Your task to perform on an android device: see tabs open on other devices in the chrome app Image 0: 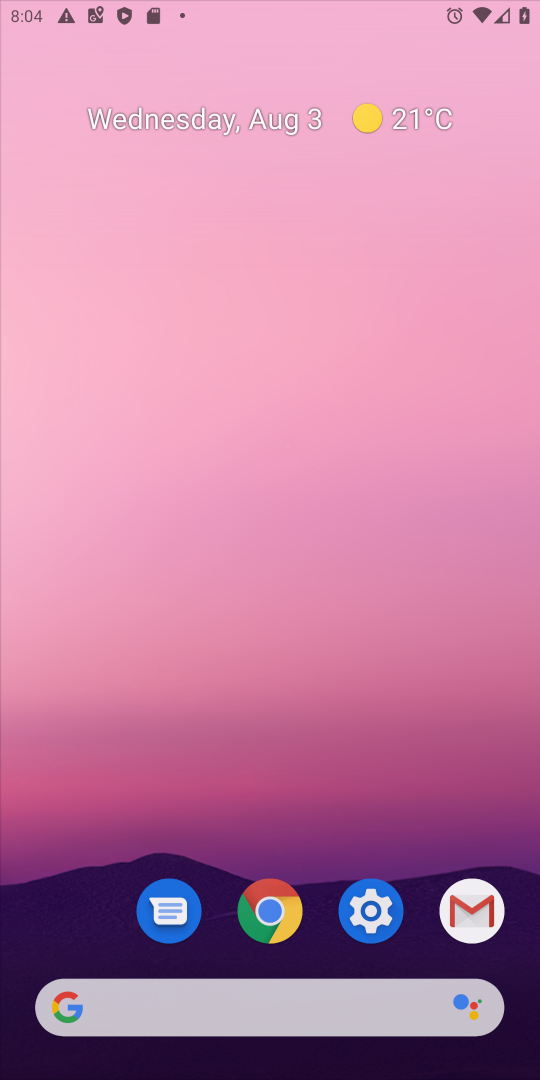
Step 0: press home button
Your task to perform on an android device: see tabs open on other devices in the chrome app Image 1: 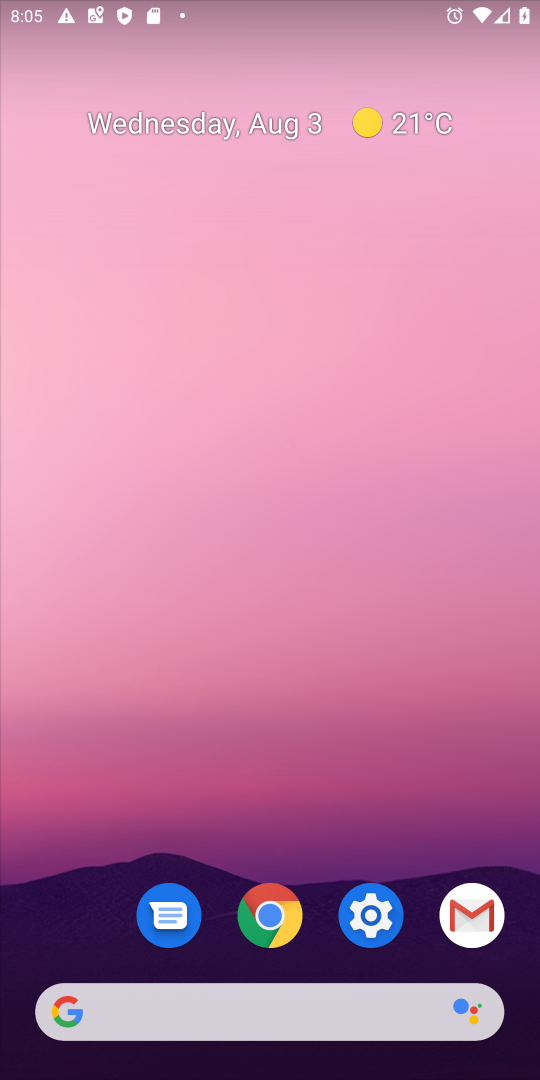
Step 1: drag from (316, 897) to (234, 341)
Your task to perform on an android device: see tabs open on other devices in the chrome app Image 2: 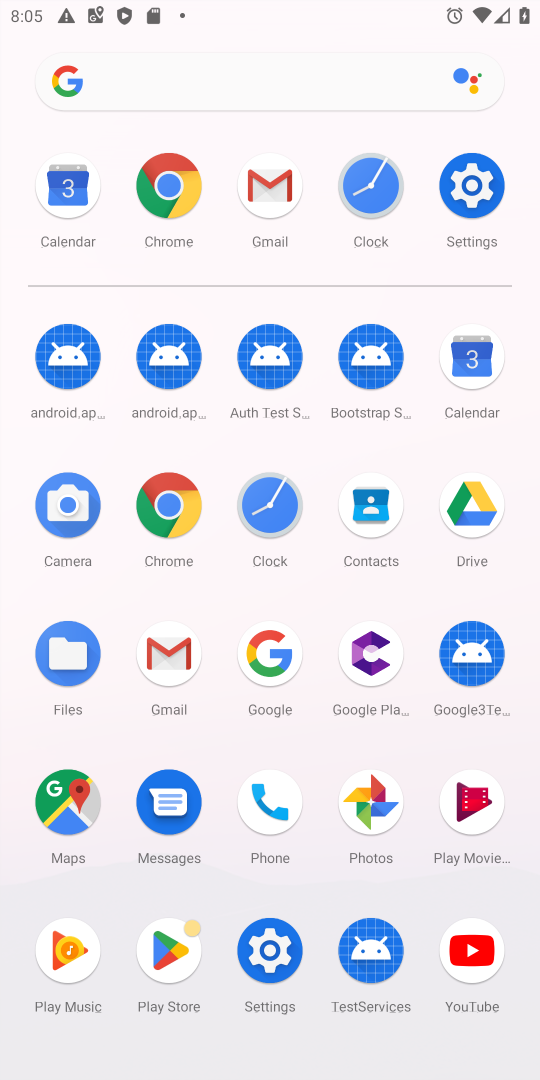
Step 2: click (176, 183)
Your task to perform on an android device: see tabs open on other devices in the chrome app Image 3: 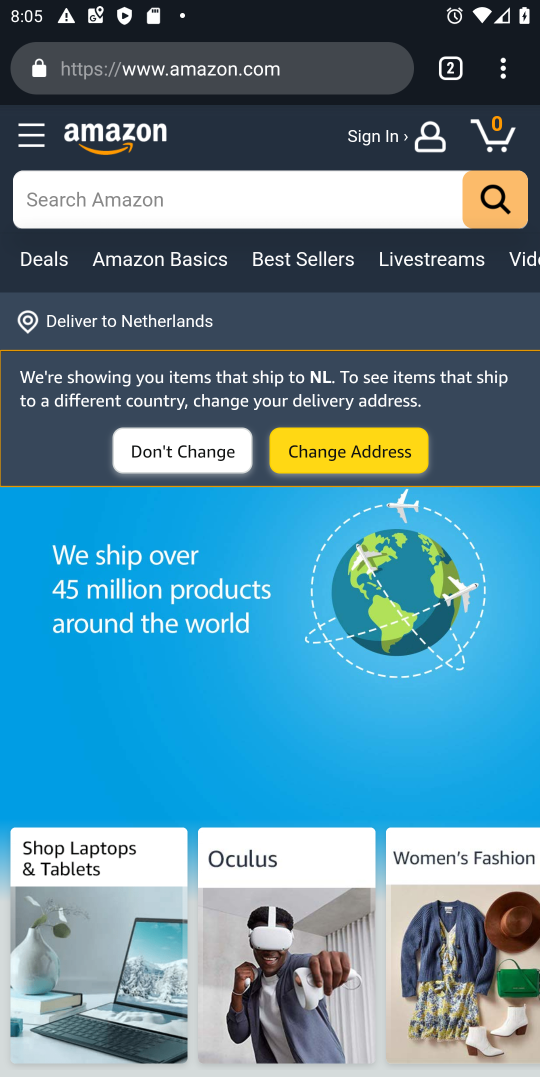
Step 3: click (496, 81)
Your task to perform on an android device: see tabs open on other devices in the chrome app Image 4: 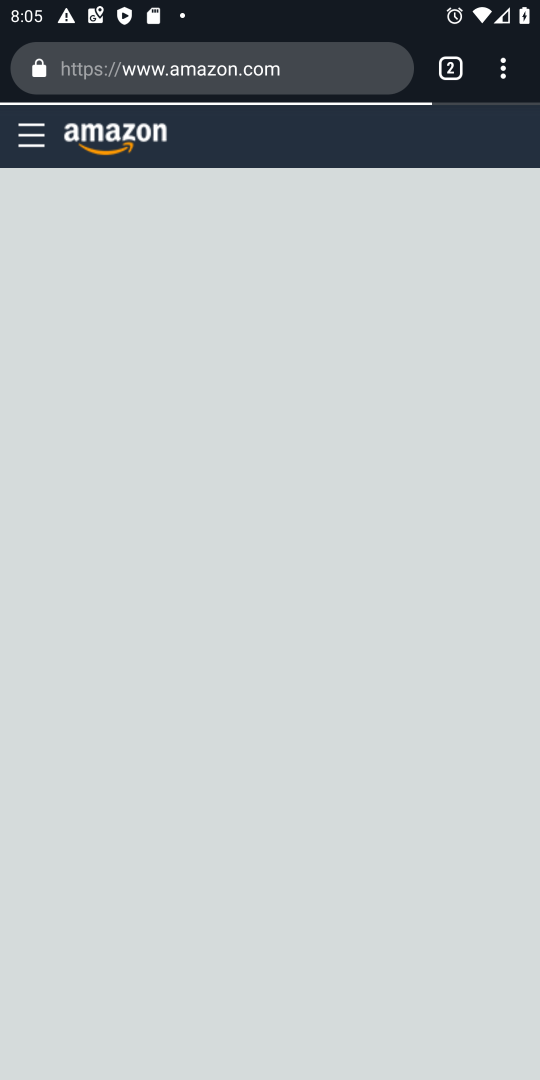
Step 4: click (451, 71)
Your task to perform on an android device: see tabs open on other devices in the chrome app Image 5: 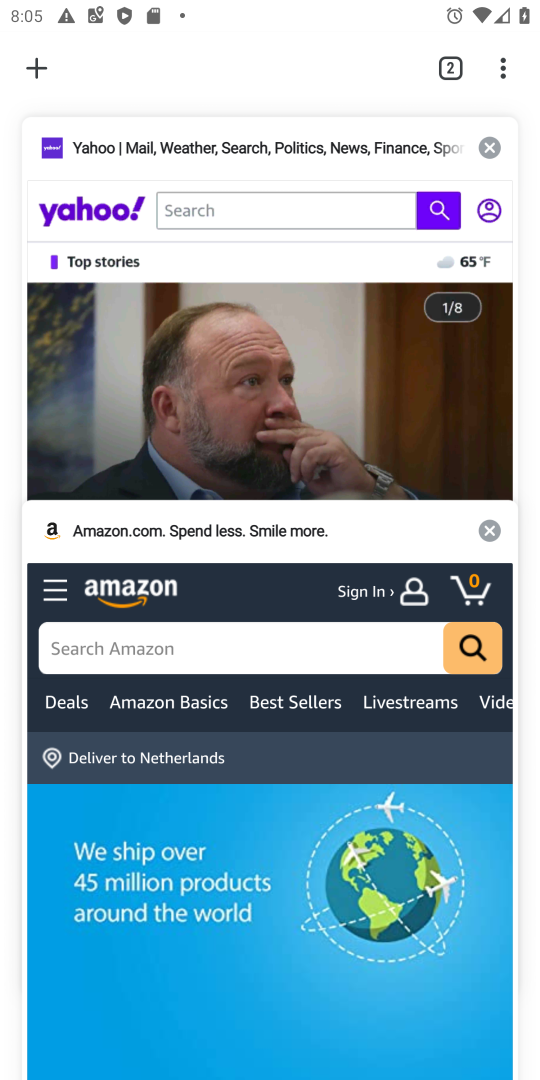
Step 5: click (34, 57)
Your task to perform on an android device: see tabs open on other devices in the chrome app Image 6: 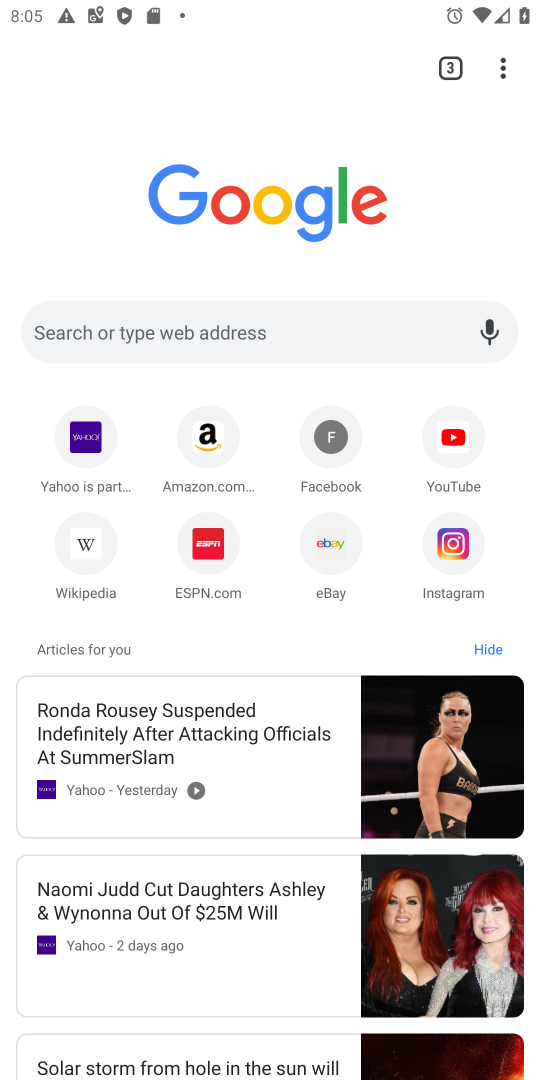
Step 6: task complete